Your task to perform on an android device: open app "YouTube Kids" (install if not already installed) Image 0: 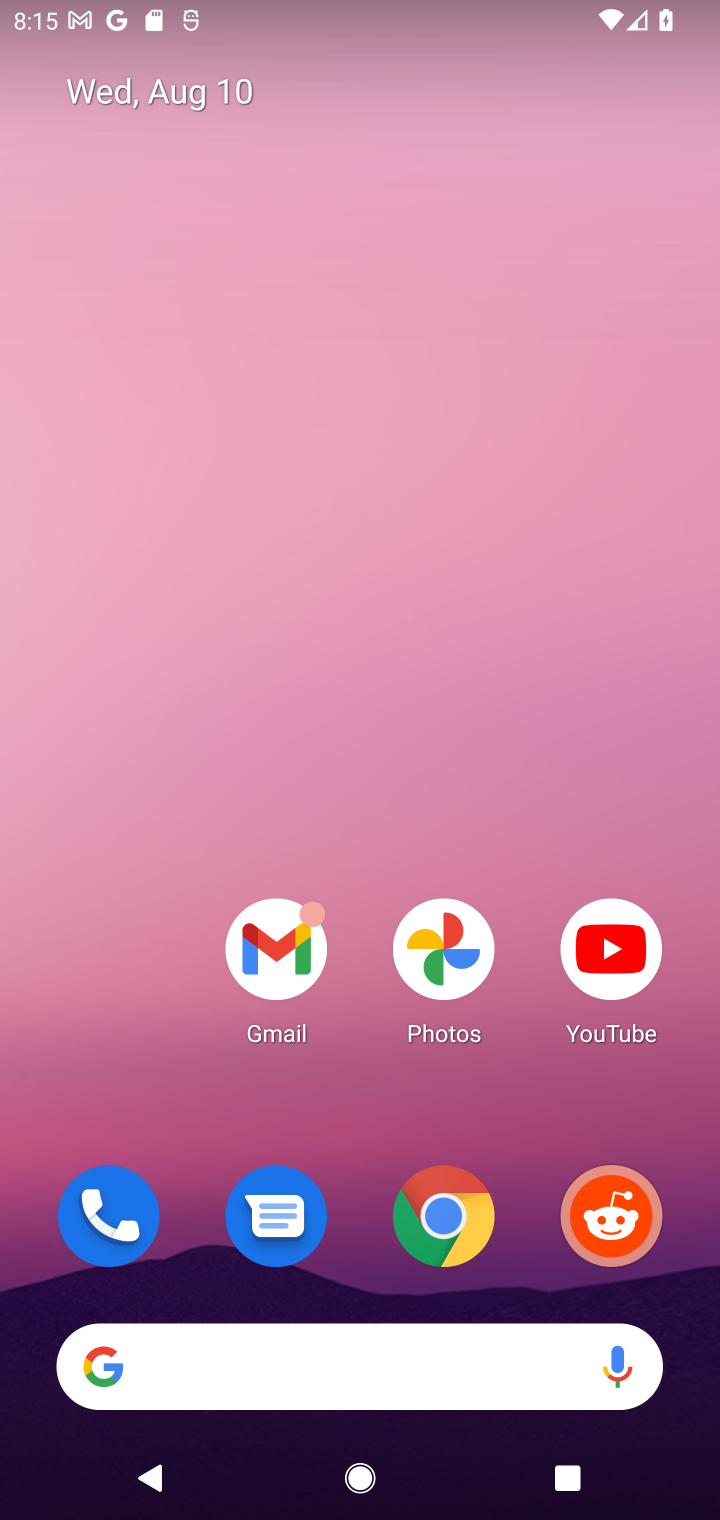
Step 0: drag from (338, 796) to (489, 76)
Your task to perform on an android device: open app "YouTube Kids" (install if not already installed) Image 1: 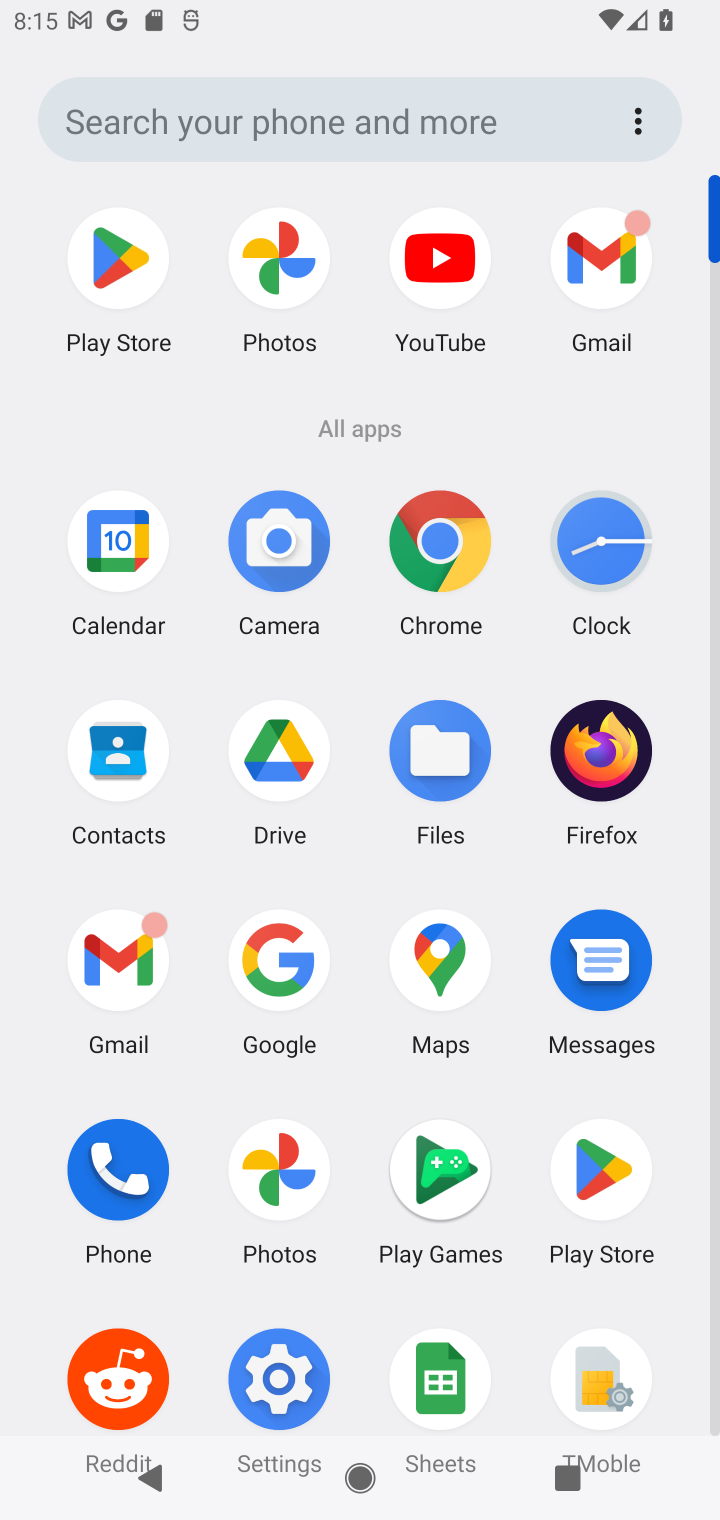
Step 1: click (130, 257)
Your task to perform on an android device: open app "YouTube Kids" (install if not already installed) Image 2: 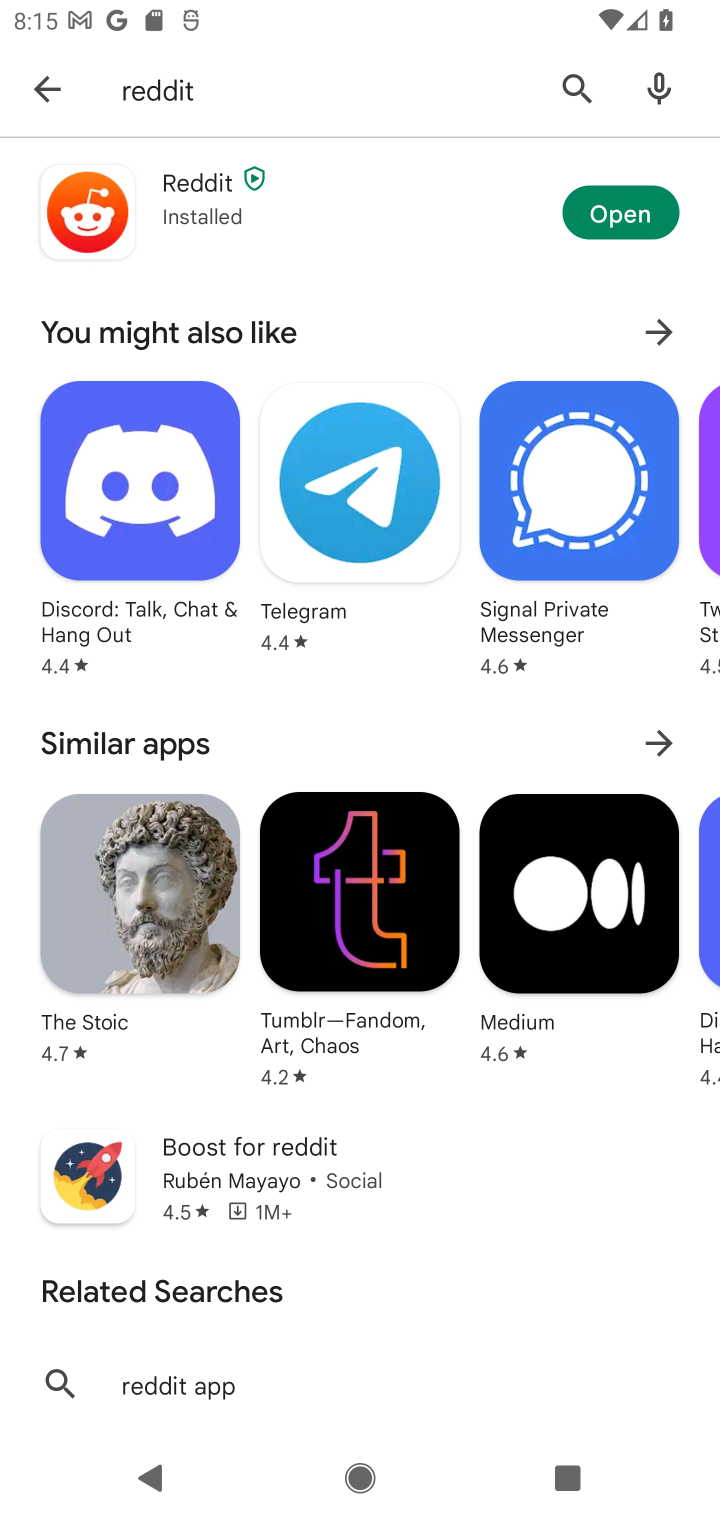
Step 2: click (597, 77)
Your task to perform on an android device: open app "YouTube Kids" (install if not already installed) Image 3: 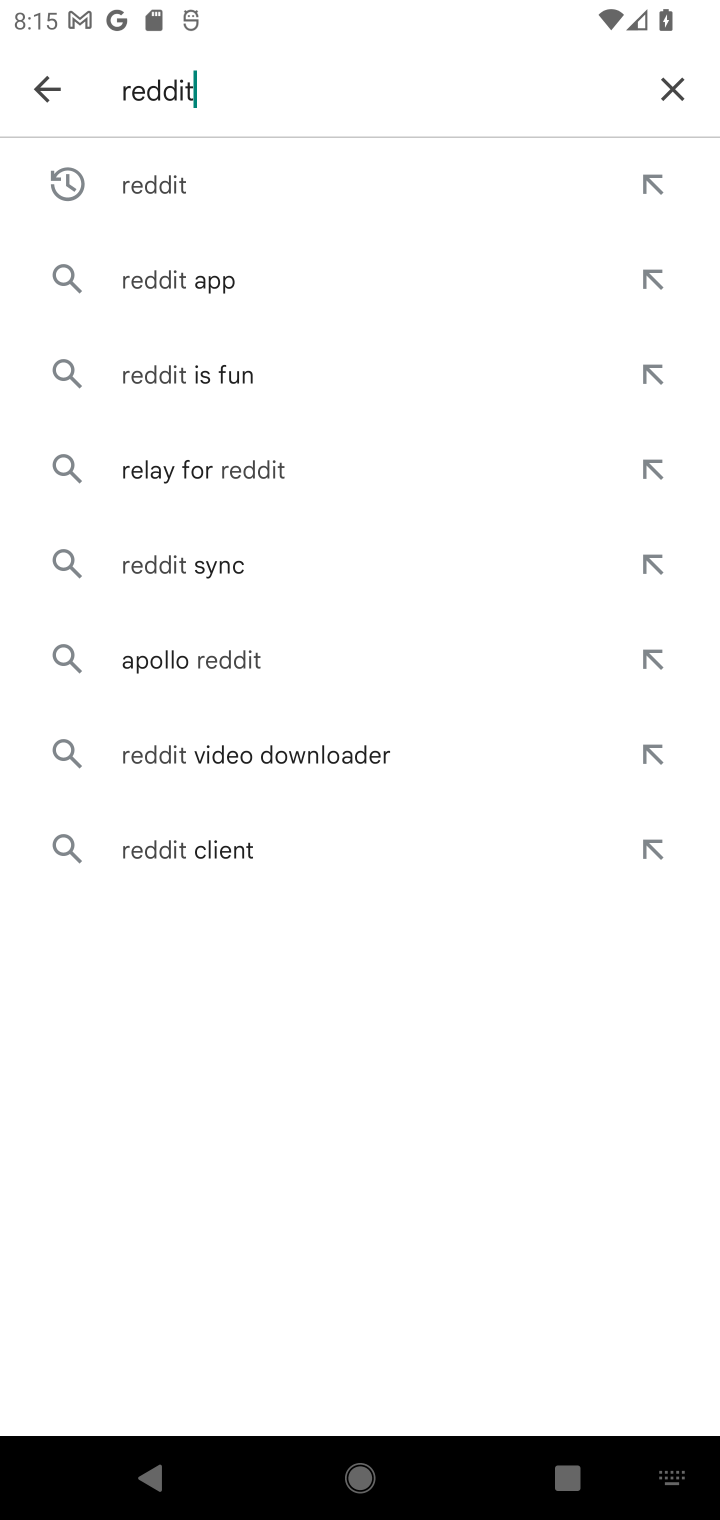
Step 3: click (676, 81)
Your task to perform on an android device: open app "YouTube Kids" (install if not already installed) Image 4: 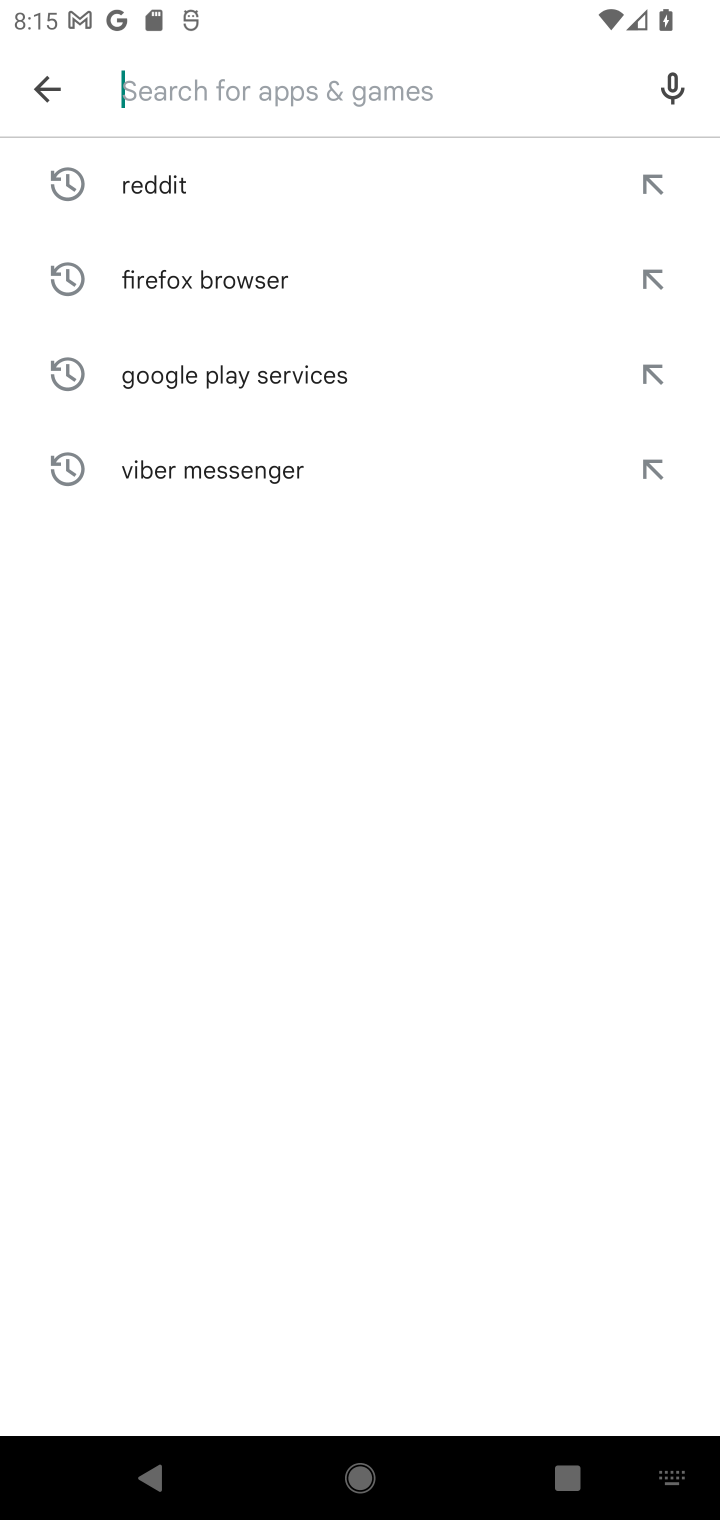
Step 4: click (161, 80)
Your task to perform on an android device: open app "YouTube Kids" (install if not already installed) Image 5: 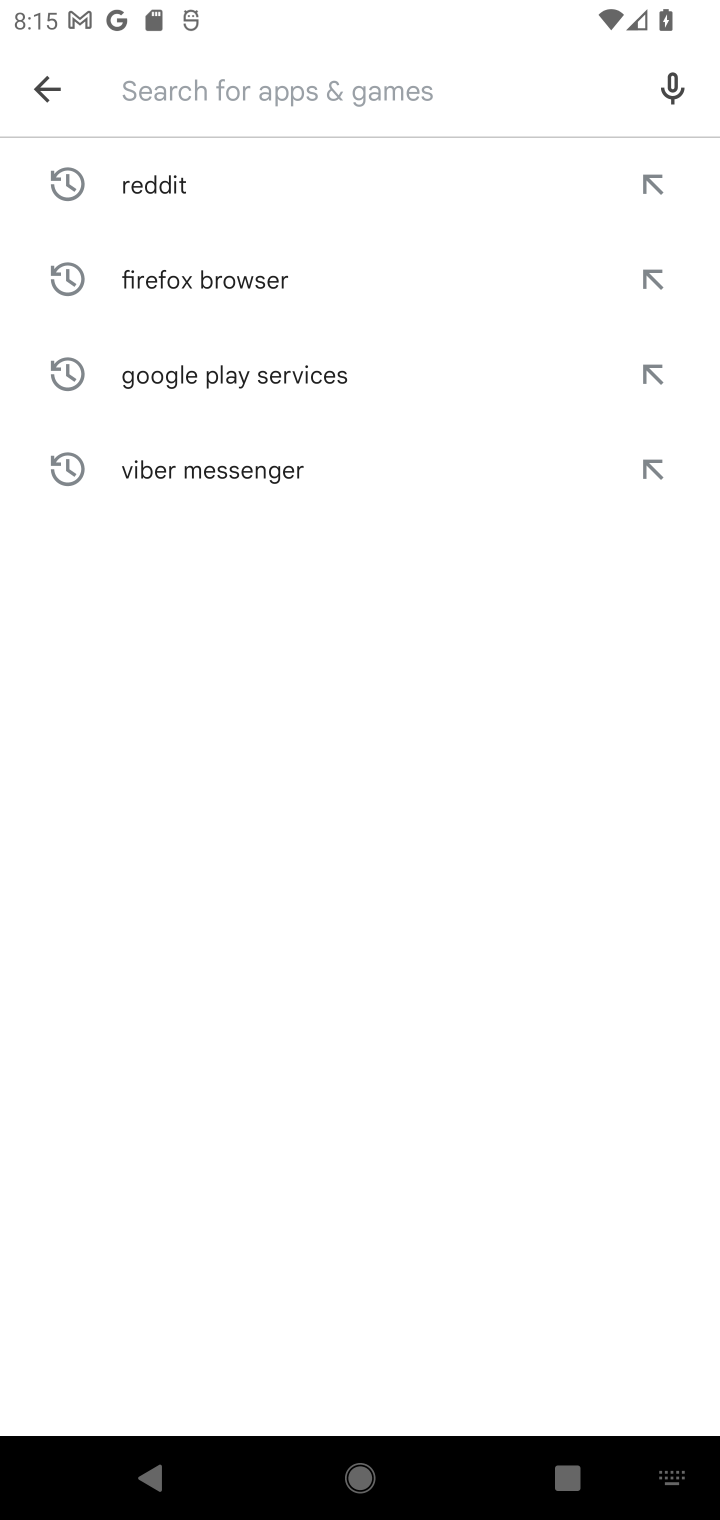
Step 5: type "YouTube Kids"
Your task to perform on an android device: open app "YouTube Kids" (install if not already installed) Image 6: 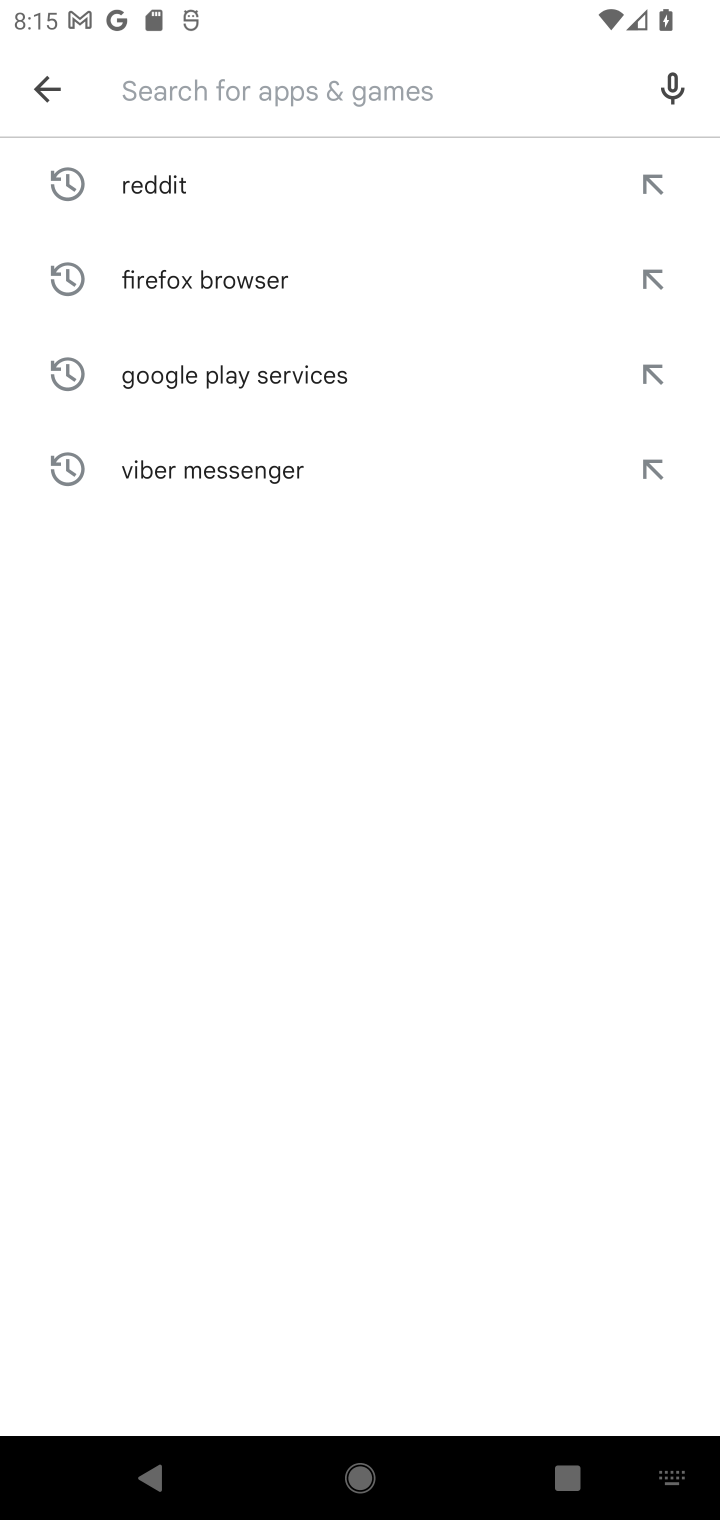
Step 6: click (409, 863)
Your task to perform on an android device: open app "YouTube Kids" (install if not already installed) Image 7: 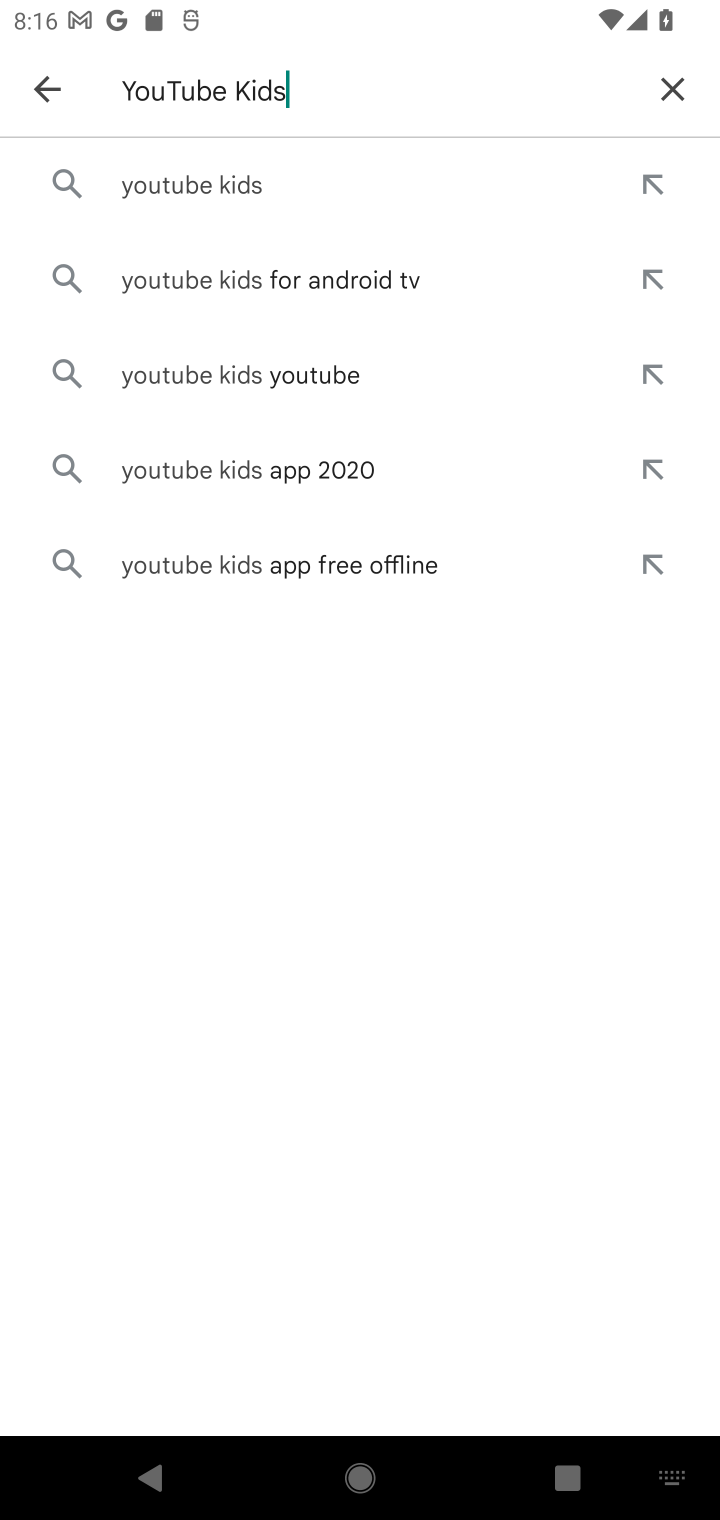
Step 7: click (210, 183)
Your task to perform on an android device: open app "YouTube Kids" (install if not already installed) Image 8: 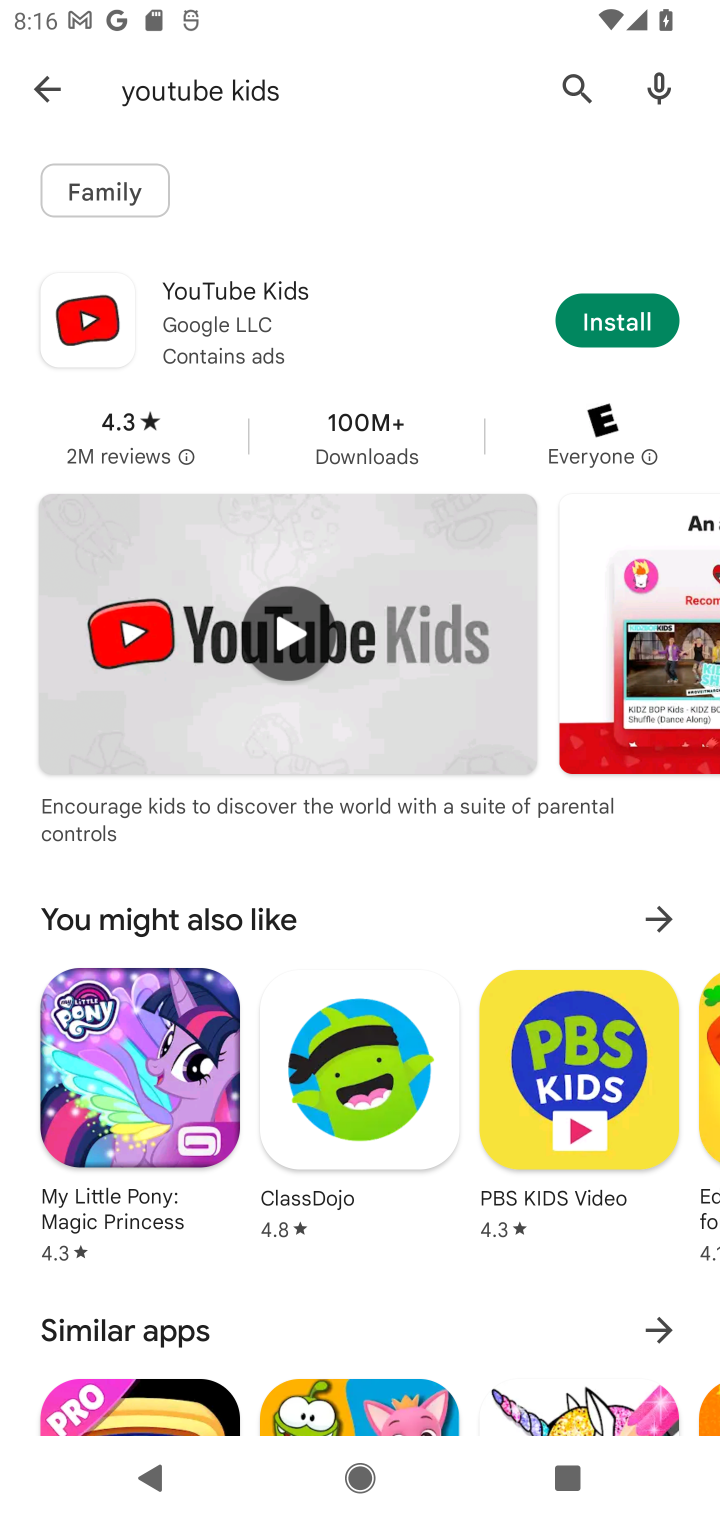
Step 8: click (641, 321)
Your task to perform on an android device: open app "YouTube Kids" (install if not already installed) Image 9: 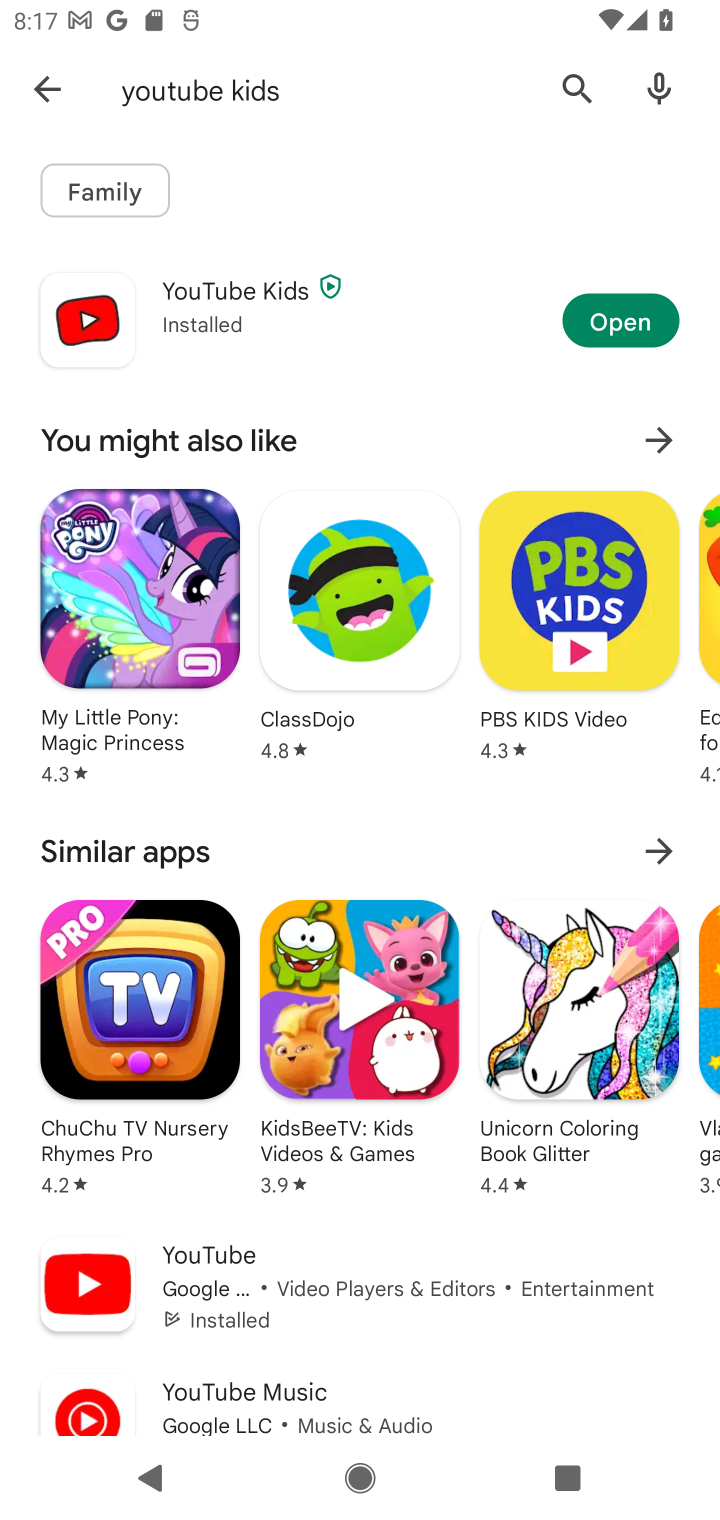
Step 9: click (620, 329)
Your task to perform on an android device: open app "YouTube Kids" (install if not already installed) Image 10: 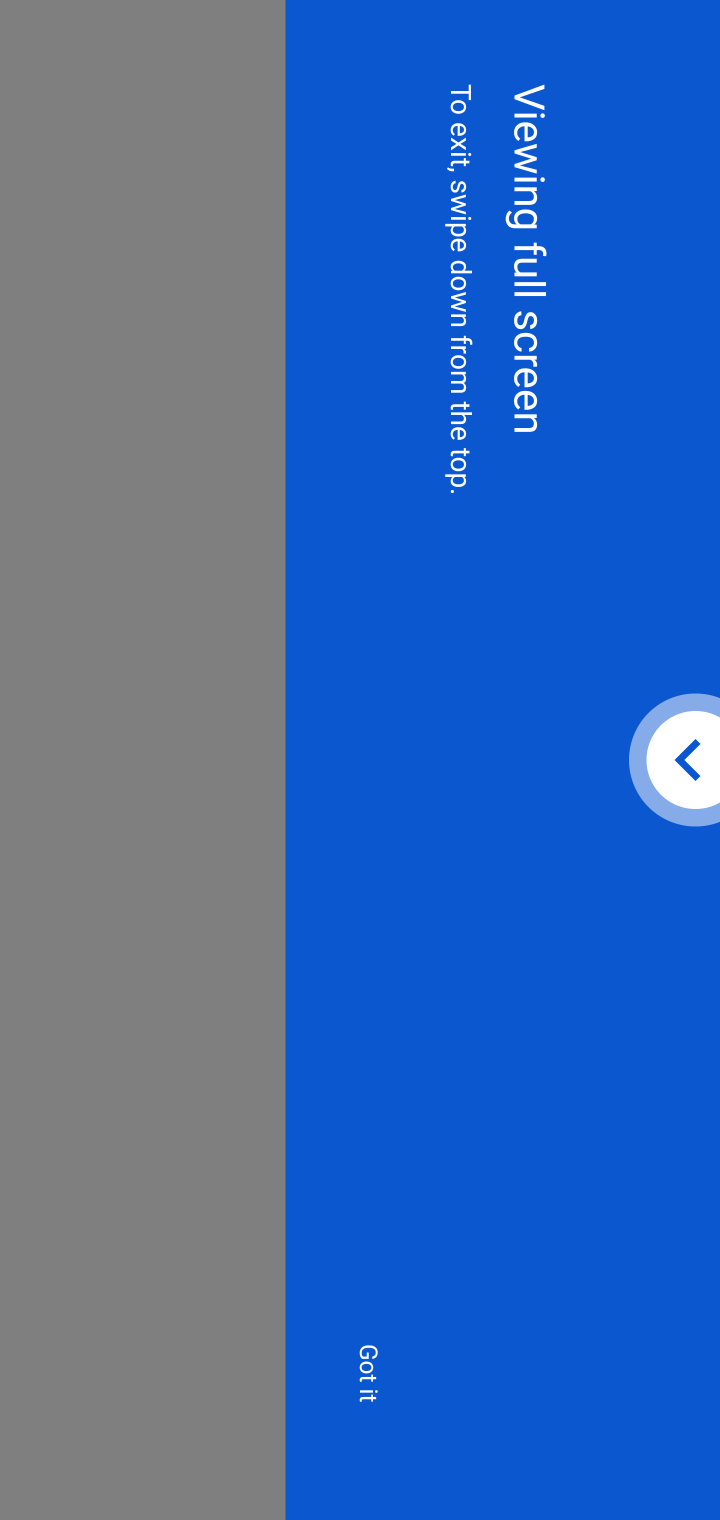
Step 10: task complete